Your task to perform on an android device: Go to Amazon Image 0: 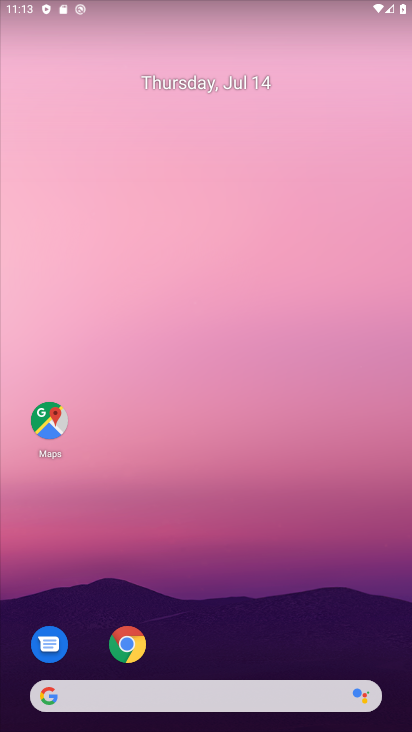
Step 0: drag from (324, 653) to (224, 10)
Your task to perform on an android device: Go to Amazon Image 1: 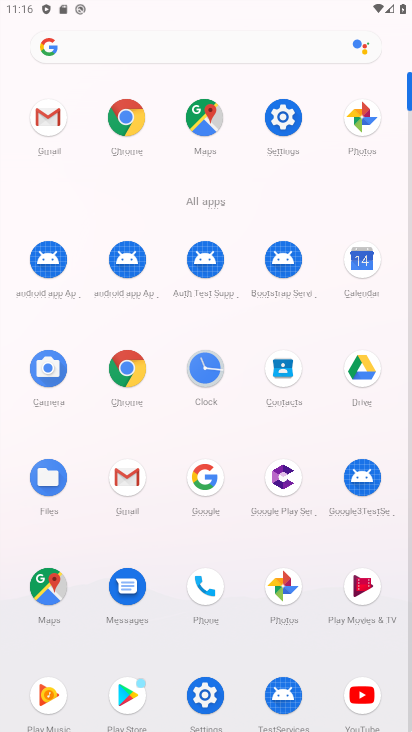
Step 1: click (201, 491)
Your task to perform on an android device: Go to Amazon Image 2: 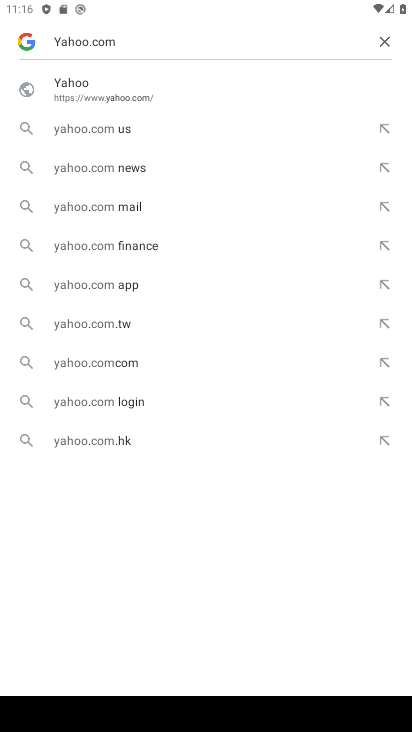
Step 2: click (387, 47)
Your task to perform on an android device: Go to Amazon Image 3: 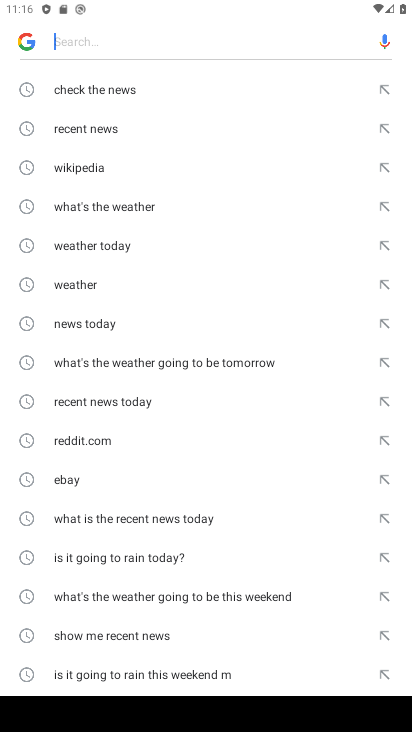
Step 3: click (110, 43)
Your task to perform on an android device: Go to Amazon Image 4: 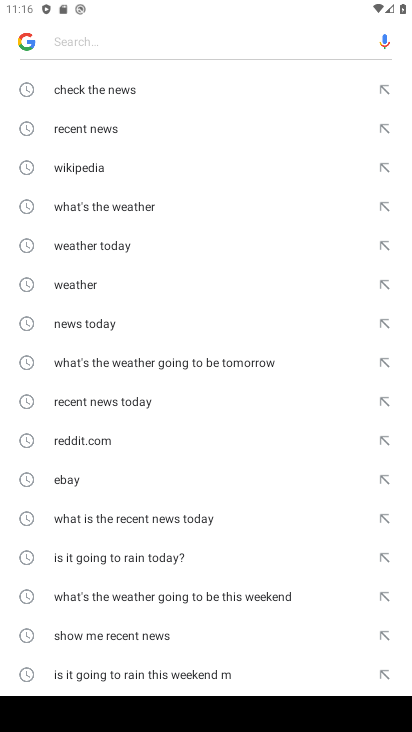
Step 4: drag from (117, 579) to (213, 237)
Your task to perform on an android device: Go to Amazon Image 5: 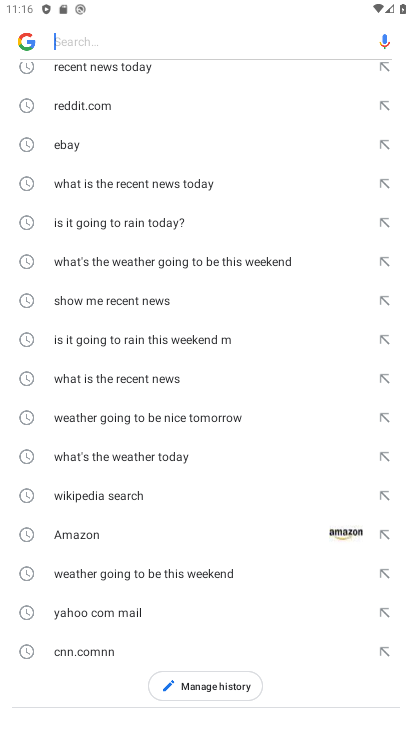
Step 5: click (59, 529)
Your task to perform on an android device: Go to Amazon Image 6: 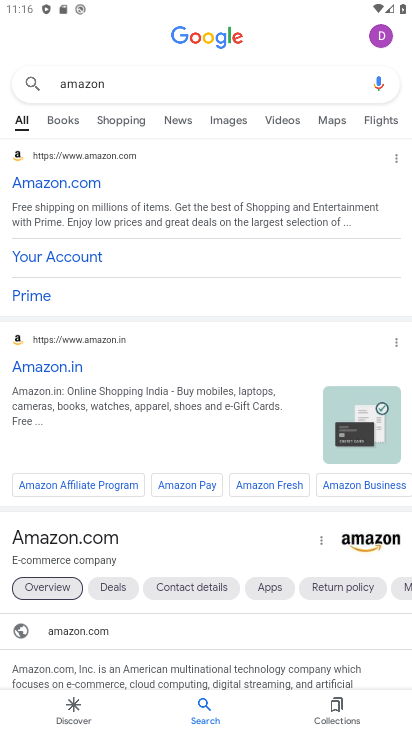
Step 6: task complete